Your task to perform on an android device: Show me recent news Image 0: 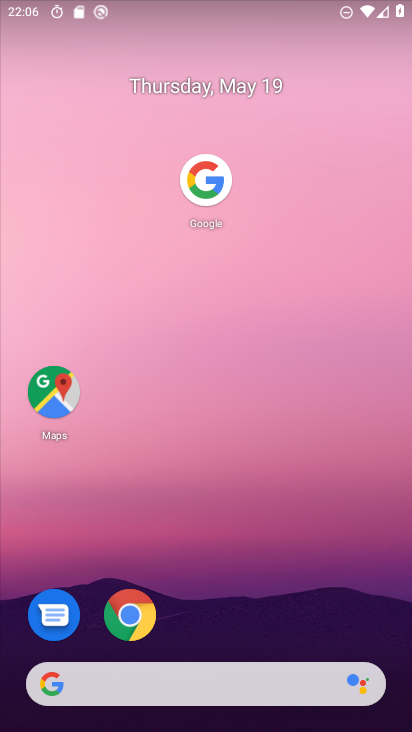
Step 0: drag from (222, 586) to (216, 57)
Your task to perform on an android device: Show me recent news Image 1: 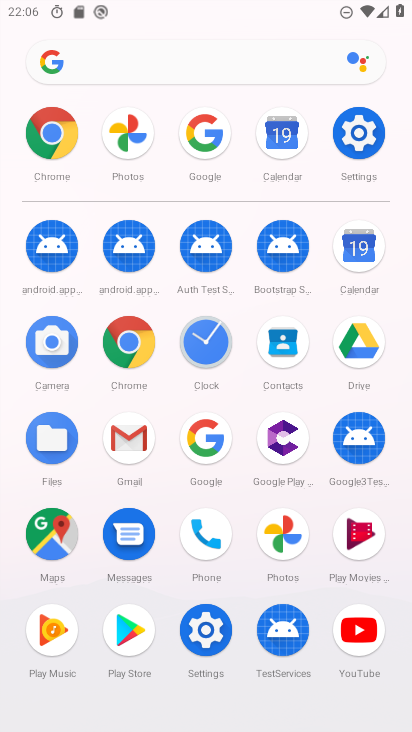
Step 1: click (206, 437)
Your task to perform on an android device: Show me recent news Image 2: 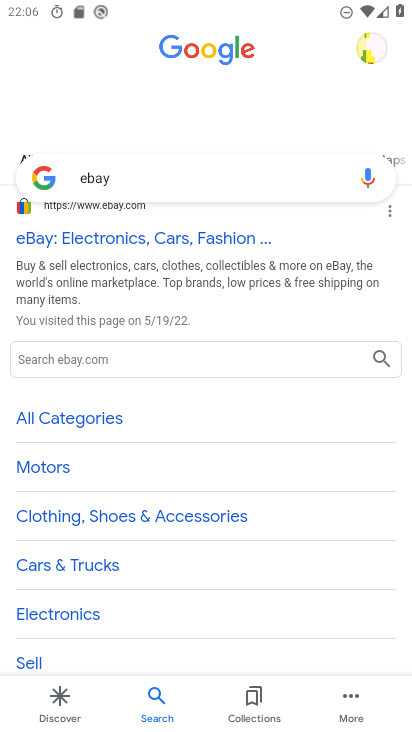
Step 2: click (182, 180)
Your task to perform on an android device: Show me recent news Image 3: 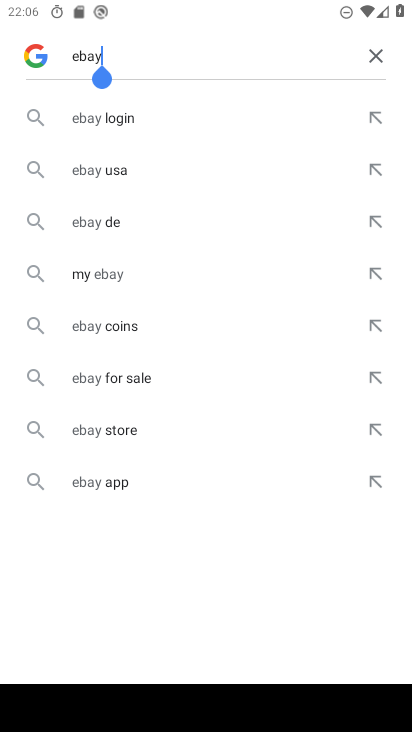
Step 3: click (369, 48)
Your task to perform on an android device: Show me recent news Image 4: 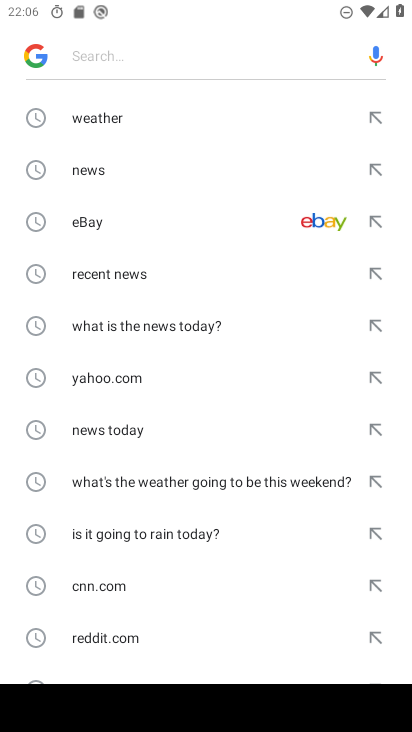
Step 4: click (142, 275)
Your task to perform on an android device: Show me recent news Image 5: 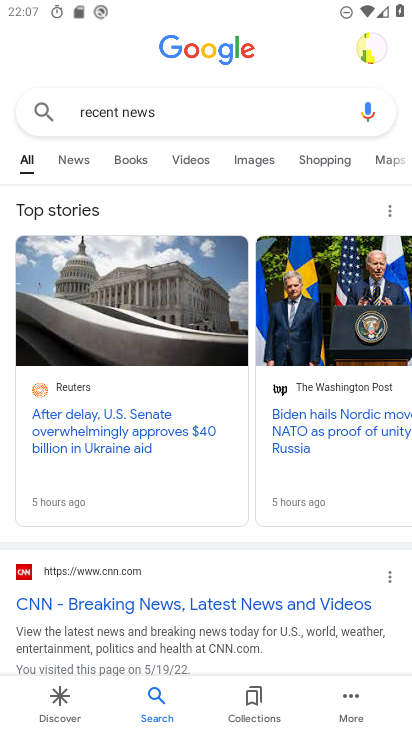
Step 5: task complete